Your task to perform on an android device: Add apple airpods to the cart on newegg, then select checkout. Image 0: 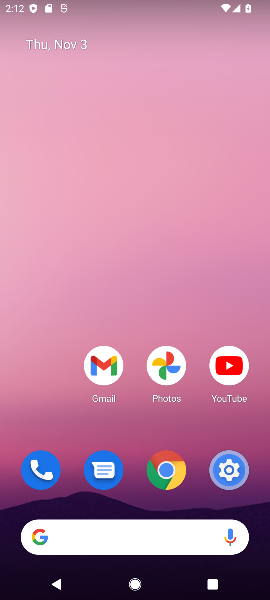
Step 0: click (175, 468)
Your task to perform on an android device: Add apple airpods to the cart on newegg, then select checkout. Image 1: 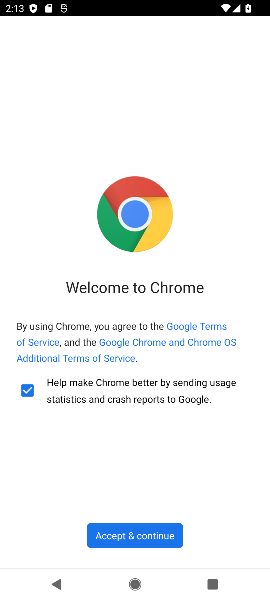
Step 1: click (146, 531)
Your task to perform on an android device: Add apple airpods to the cart on newegg, then select checkout. Image 2: 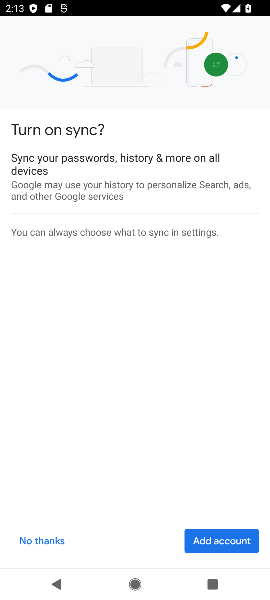
Step 2: click (32, 541)
Your task to perform on an android device: Add apple airpods to the cart on newegg, then select checkout. Image 3: 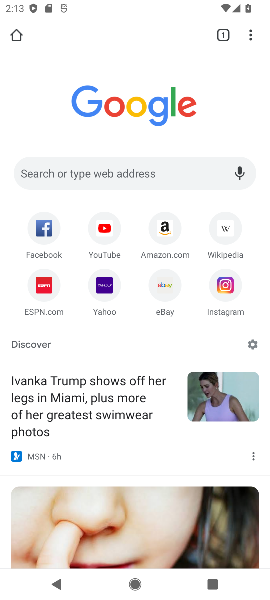
Step 3: click (71, 173)
Your task to perform on an android device: Add apple airpods to the cart on newegg, then select checkout. Image 4: 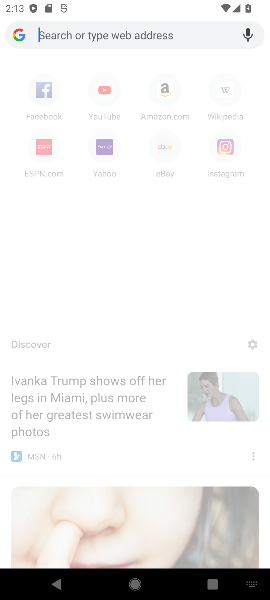
Step 4: type "newegg"
Your task to perform on an android device: Add apple airpods to the cart on newegg, then select checkout. Image 5: 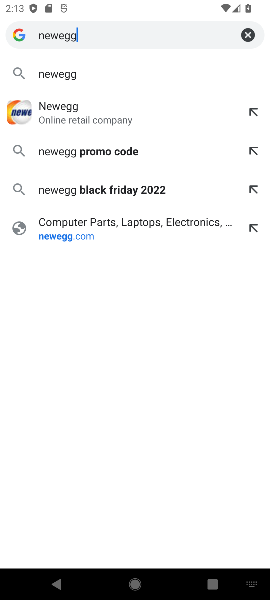
Step 5: click (69, 100)
Your task to perform on an android device: Add apple airpods to the cart on newegg, then select checkout. Image 6: 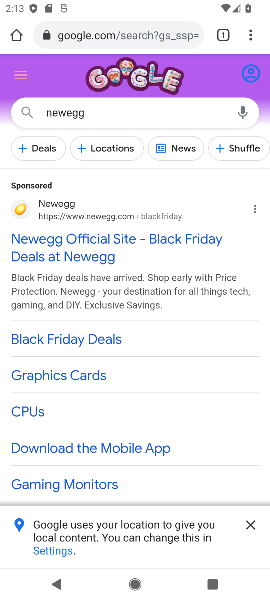
Step 6: click (253, 522)
Your task to perform on an android device: Add apple airpods to the cart on newegg, then select checkout. Image 7: 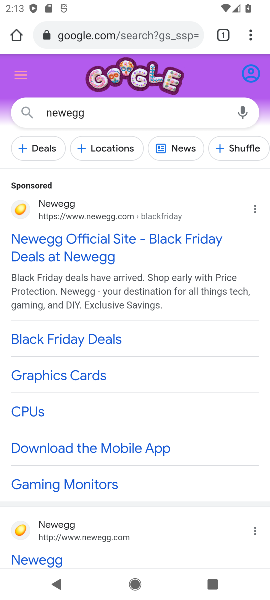
Step 7: drag from (116, 518) to (155, 213)
Your task to perform on an android device: Add apple airpods to the cart on newegg, then select checkout. Image 8: 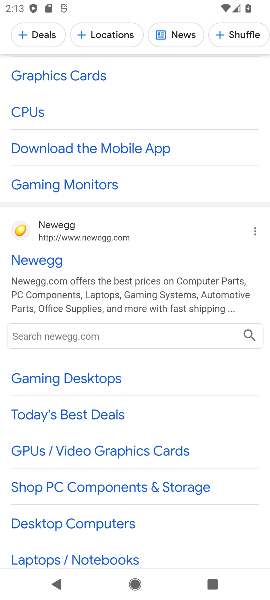
Step 8: click (64, 336)
Your task to perform on an android device: Add apple airpods to the cart on newegg, then select checkout. Image 9: 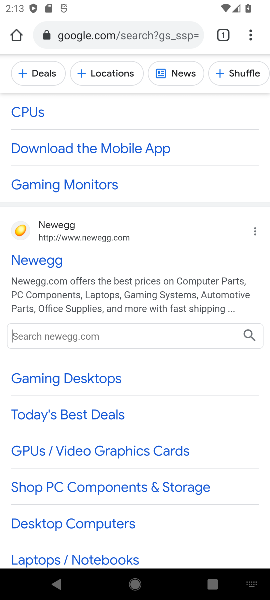
Step 9: type "apple airpods"
Your task to perform on an android device: Add apple airpods to the cart on newegg, then select checkout. Image 10: 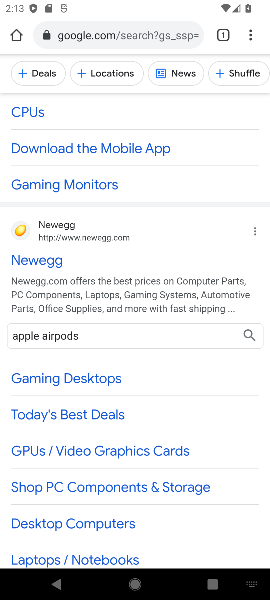
Step 10: click (247, 332)
Your task to perform on an android device: Add apple airpods to the cart on newegg, then select checkout. Image 11: 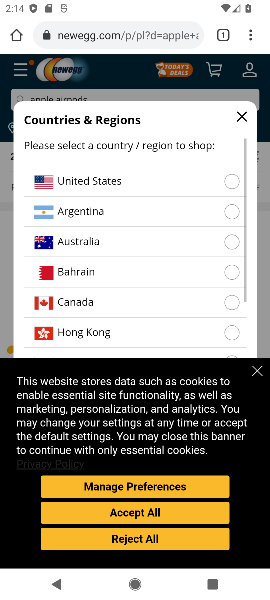
Step 11: click (260, 371)
Your task to perform on an android device: Add apple airpods to the cart on newegg, then select checkout. Image 12: 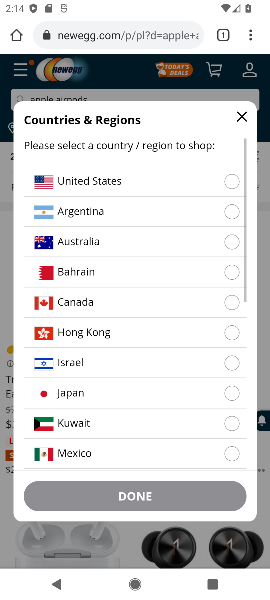
Step 12: click (230, 176)
Your task to perform on an android device: Add apple airpods to the cart on newegg, then select checkout. Image 13: 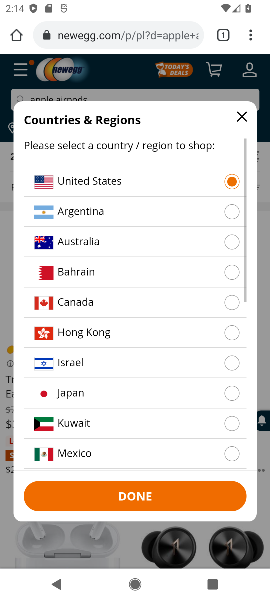
Step 13: click (131, 492)
Your task to perform on an android device: Add apple airpods to the cart on newegg, then select checkout. Image 14: 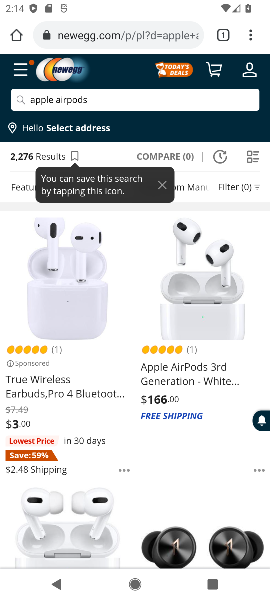
Step 14: click (200, 371)
Your task to perform on an android device: Add apple airpods to the cart on newegg, then select checkout. Image 15: 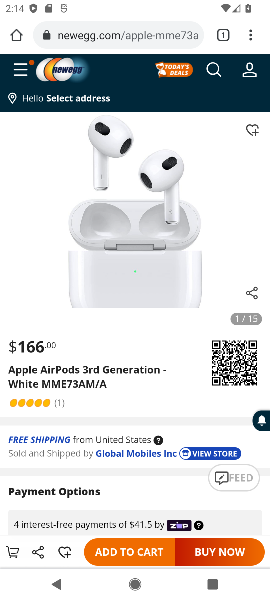
Step 15: click (130, 550)
Your task to perform on an android device: Add apple airpods to the cart on newegg, then select checkout. Image 16: 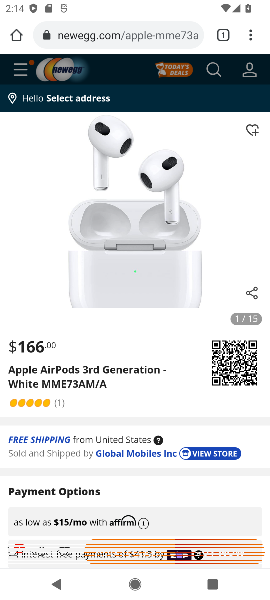
Step 16: click (75, 539)
Your task to perform on an android device: Add apple airpods to the cart on newegg, then select checkout. Image 17: 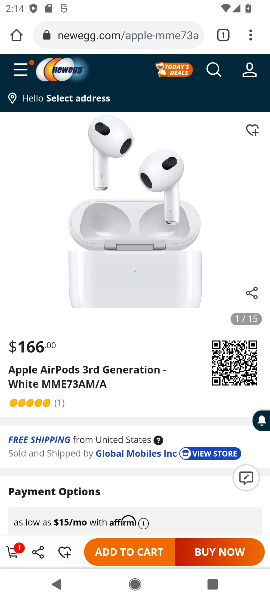
Step 17: click (16, 549)
Your task to perform on an android device: Add apple airpods to the cart on newegg, then select checkout. Image 18: 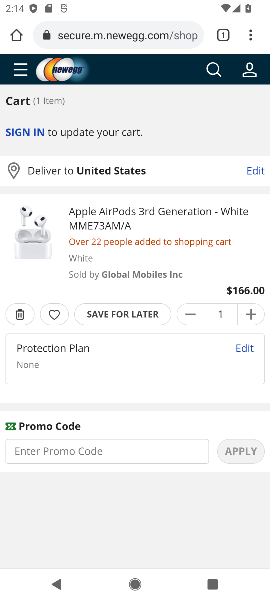
Step 18: click (134, 524)
Your task to perform on an android device: Add apple airpods to the cart on newegg, then select checkout. Image 19: 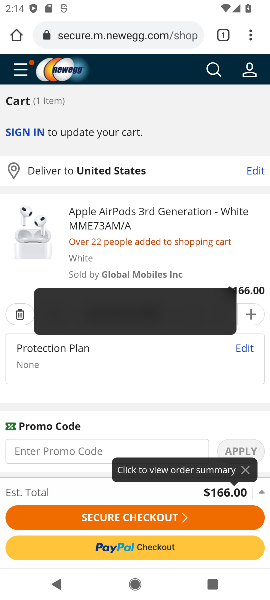
Step 19: click (160, 517)
Your task to perform on an android device: Add apple airpods to the cart on newegg, then select checkout. Image 20: 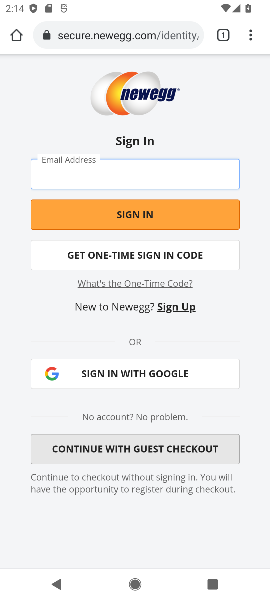
Step 20: task complete